Your task to perform on an android device: turn off notifications in google photos Image 0: 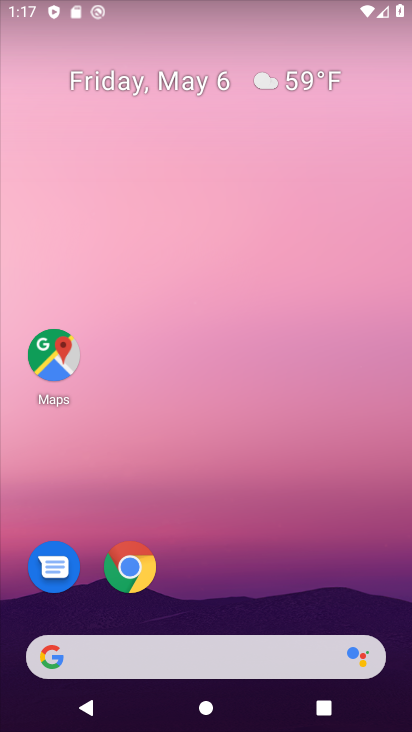
Step 0: drag from (264, 579) to (239, 69)
Your task to perform on an android device: turn off notifications in google photos Image 1: 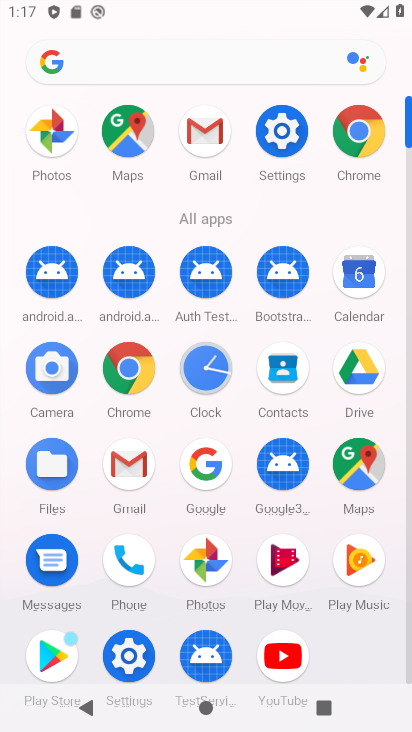
Step 1: click (210, 555)
Your task to perform on an android device: turn off notifications in google photos Image 2: 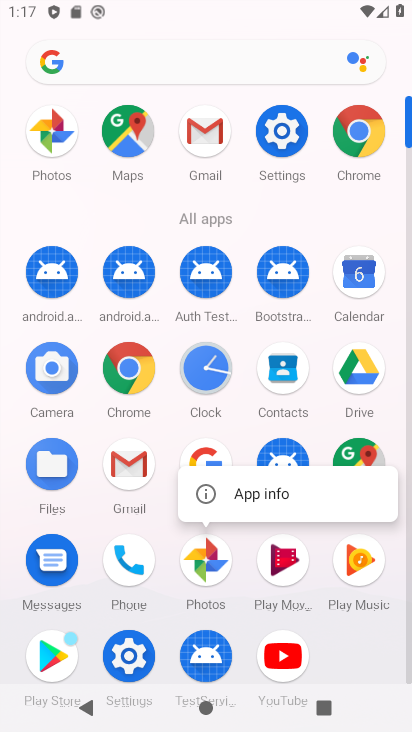
Step 2: click (241, 495)
Your task to perform on an android device: turn off notifications in google photos Image 3: 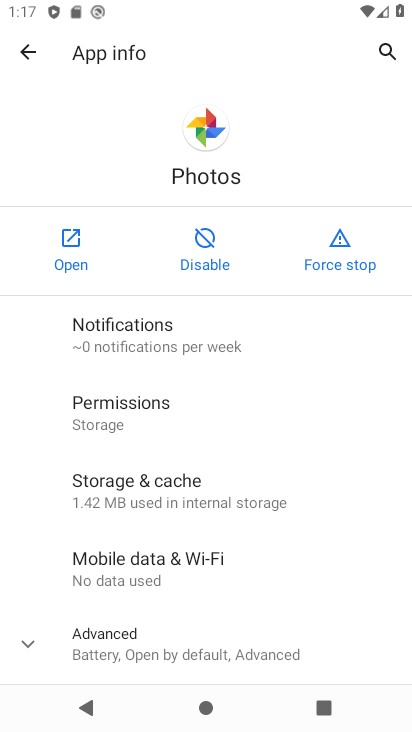
Step 3: click (111, 343)
Your task to perform on an android device: turn off notifications in google photos Image 4: 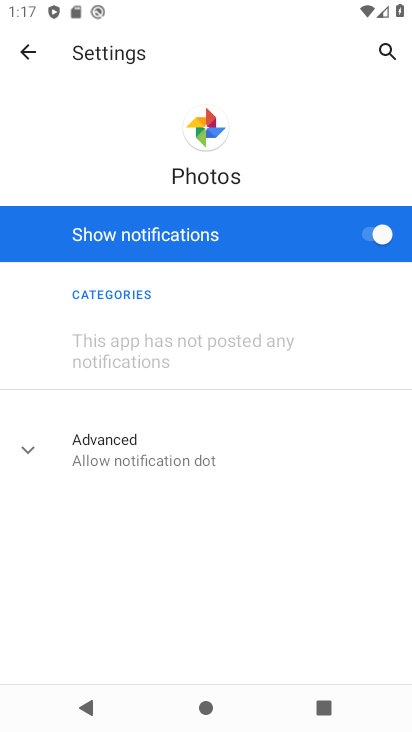
Step 4: click (373, 233)
Your task to perform on an android device: turn off notifications in google photos Image 5: 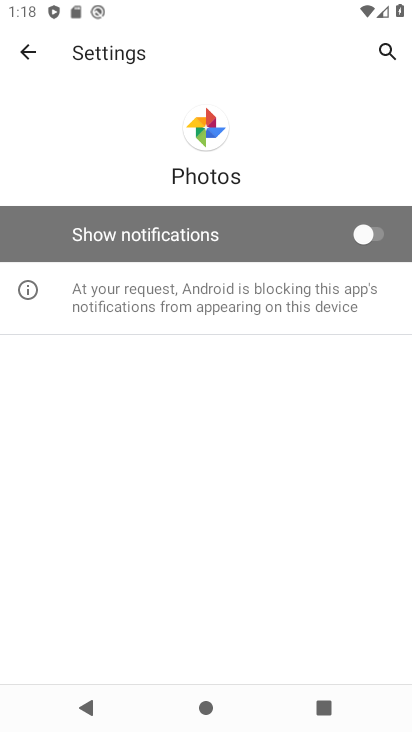
Step 5: task complete